Your task to perform on an android device: allow notifications from all sites in the chrome app Image 0: 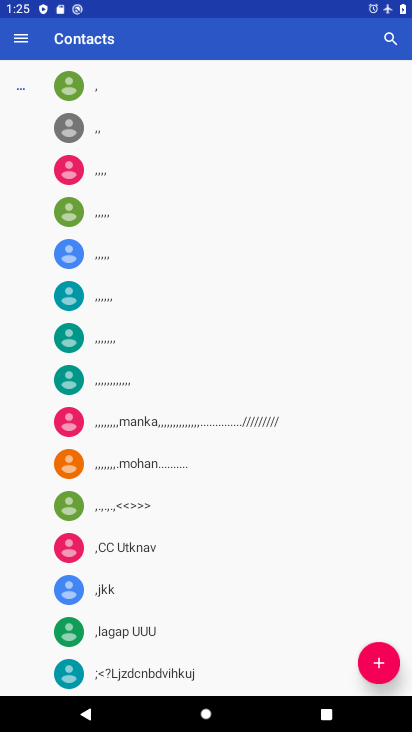
Step 0: press home button
Your task to perform on an android device: allow notifications from all sites in the chrome app Image 1: 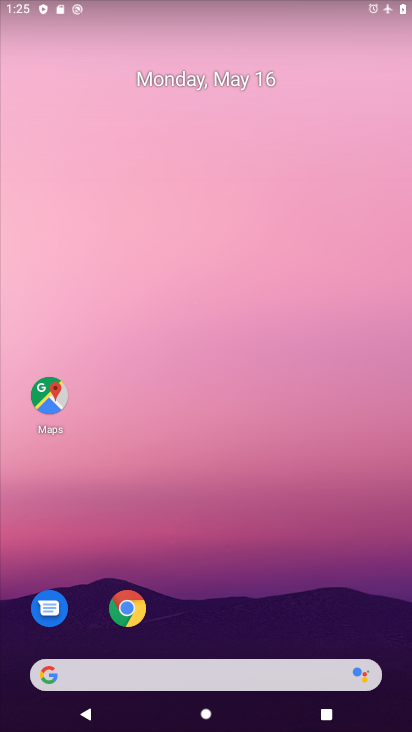
Step 1: click (133, 617)
Your task to perform on an android device: allow notifications from all sites in the chrome app Image 2: 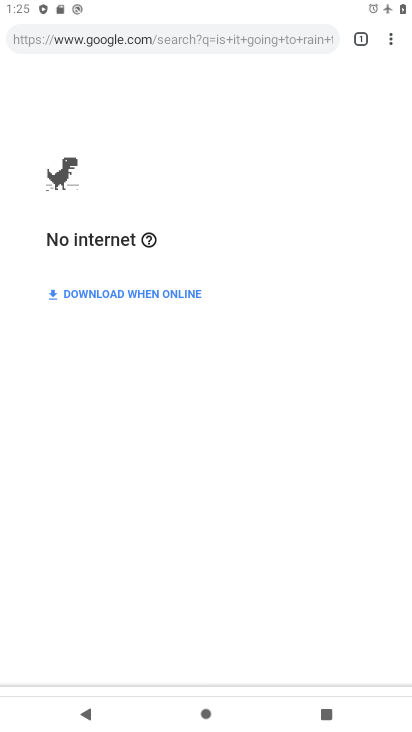
Step 2: drag from (392, 39) to (260, 440)
Your task to perform on an android device: allow notifications from all sites in the chrome app Image 3: 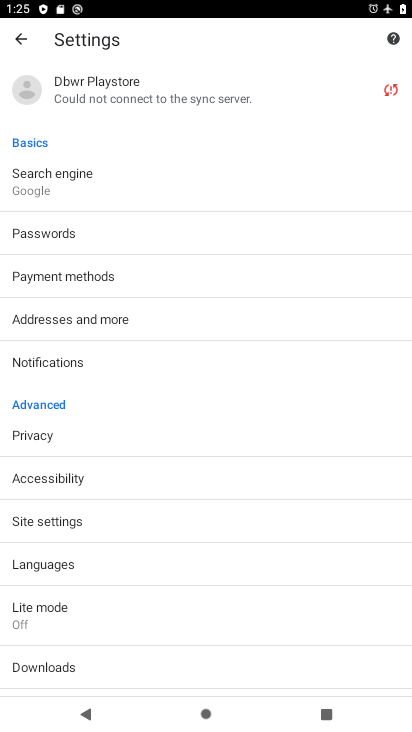
Step 3: click (77, 362)
Your task to perform on an android device: allow notifications from all sites in the chrome app Image 4: 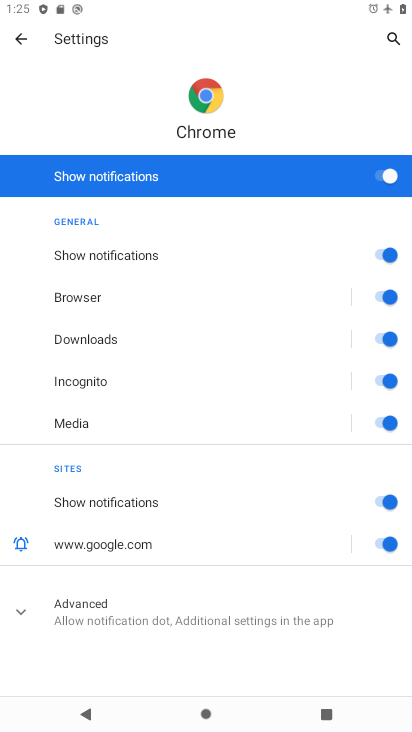
Step 4: task complete